Your task to perform on an android device: snooze an email in the gmail app Image 0: 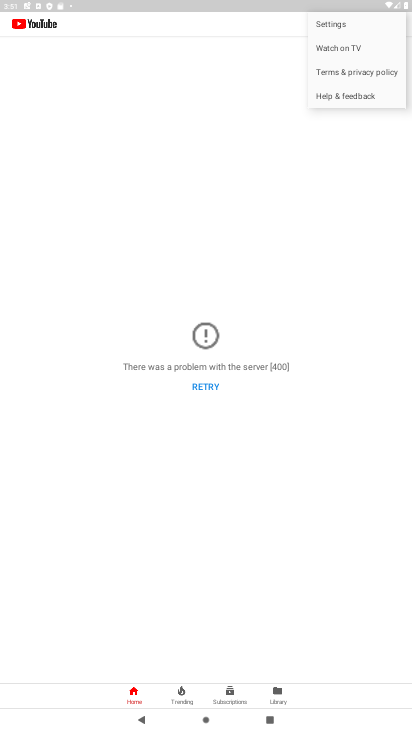
Step 0: press home button
Your task to perform on an android device: snooze an email in the gmail app Image 1: 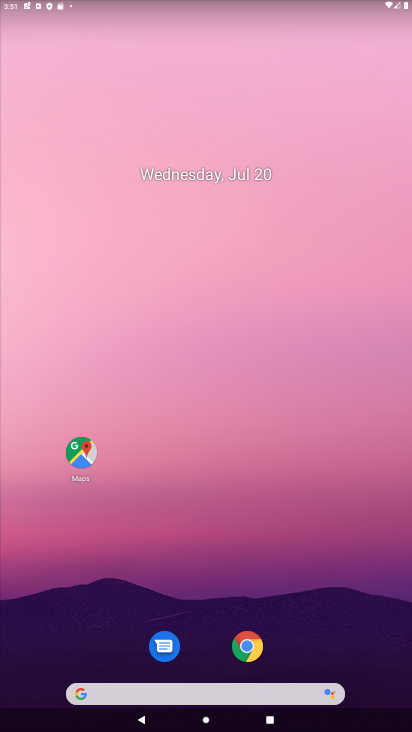
Step 1: drag from (216, 595) to (231, 146)
Your task to perform on an android device: snooze an email in the gmail app Image 2: 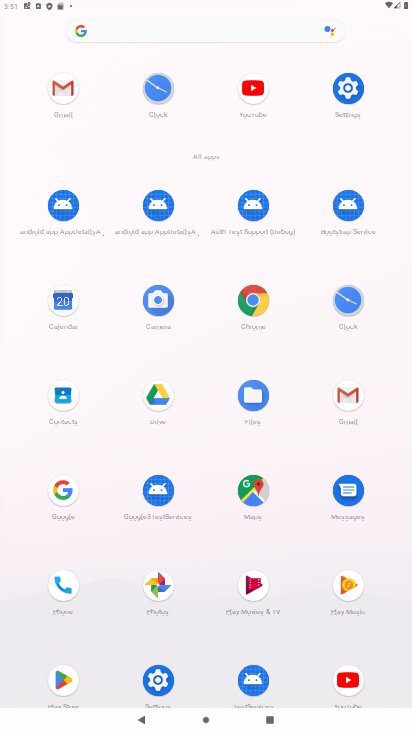
Step 2: click (61, 95)
Your task to perform on an android device: snooze an email in the gmail app Image 3: 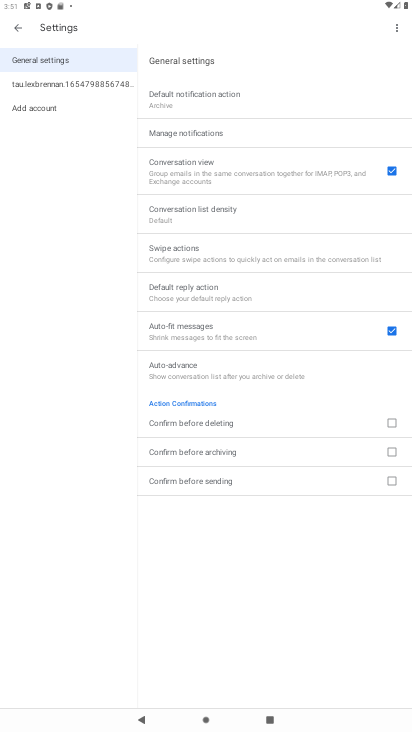
Step 3: click (17, 31)
Your task to perform on an android device: snooze an email in the gmail app Image 4: 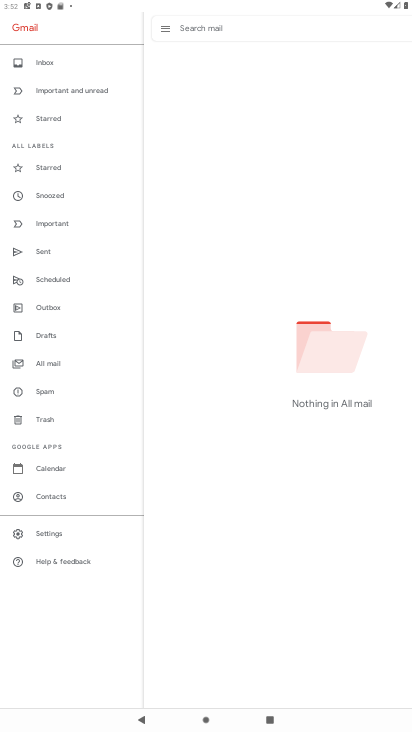
Step 4: click (59, 366)
Your task to perform on an android device: snooze an email in the gmail app Image 5: 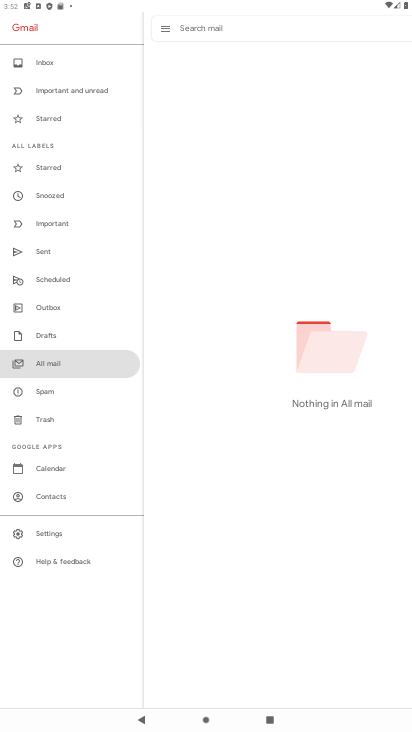
Step 5: task complete